Your task to perform on an android device: turn off location Image 0: 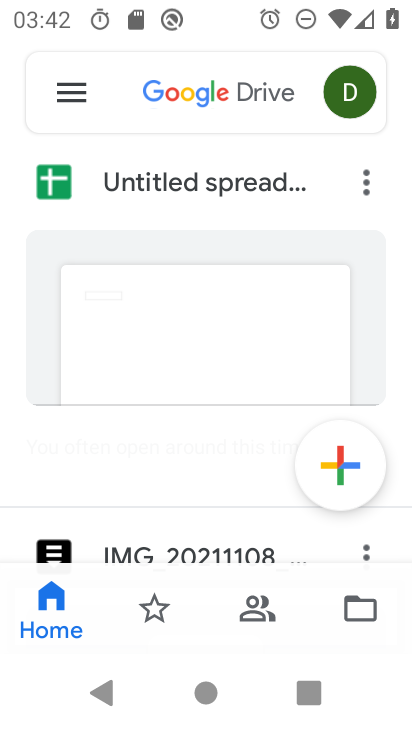
Step 0: press home button
Your task to perform on an android device: turn off location Image 1: 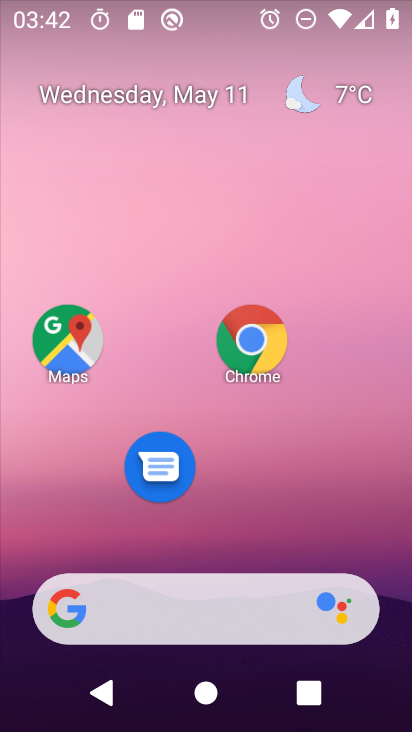
Step 1: drag from (165, 633) to (266, 64)
Your task to perform on an android device: turn off location Image 2: 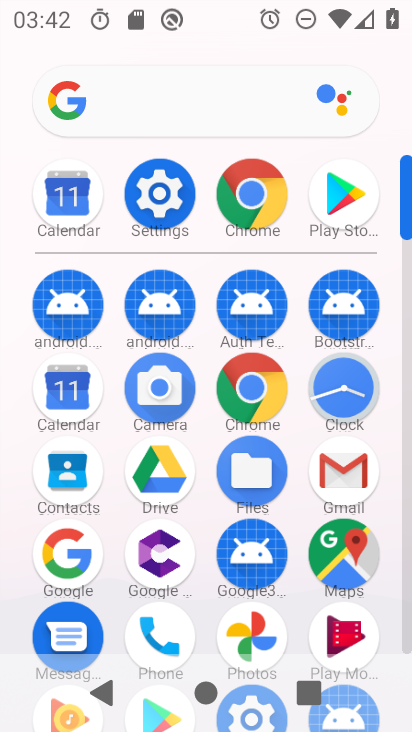
Step 2: click (170, 191)
Your task to perform on an android device: turn off location Image 3: 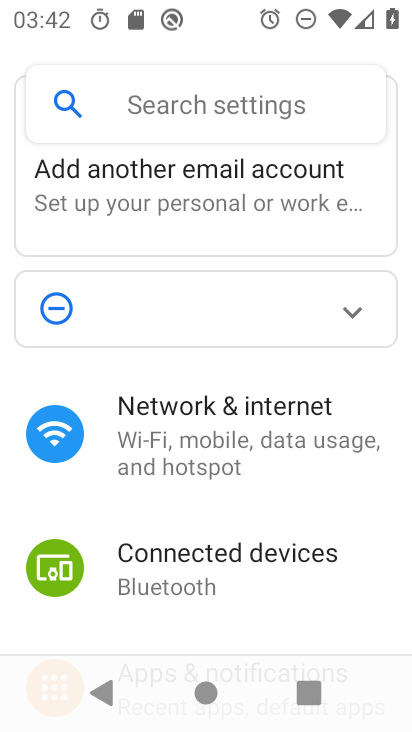
Step 3: drag from (212, 593) to (321, 157)
Your task to perform on an android device: turn off location Image 4: 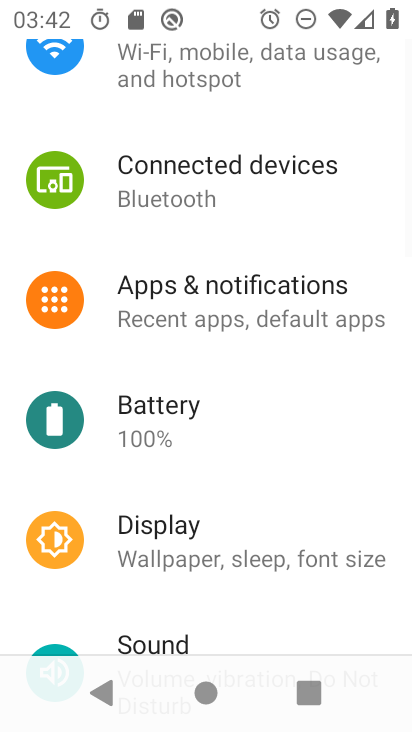
Step 4: drag from (245, 585) to (307, 169)
Your task to perform on an android device: turn off location Image 5: 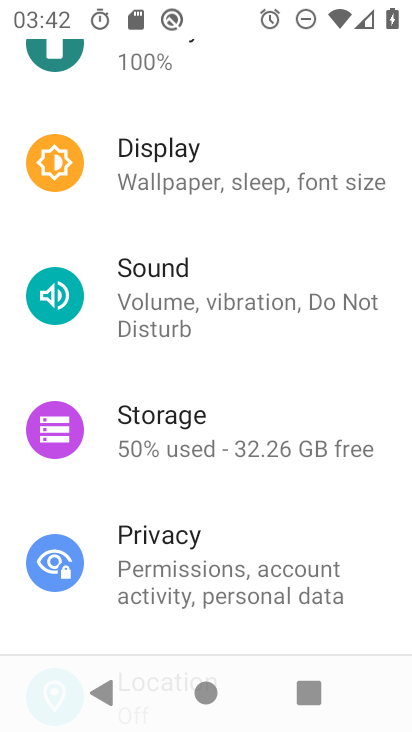
Step 5: drag from (208, 564) to (241, 176)
Your task to perform on an android device: turn off location Image 6: 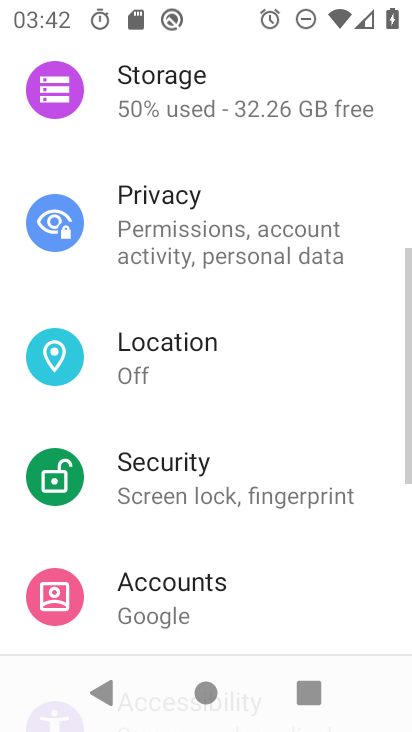
Step 6: click (182, 355)
Your task to perform on an android device: turn off location Image 7: 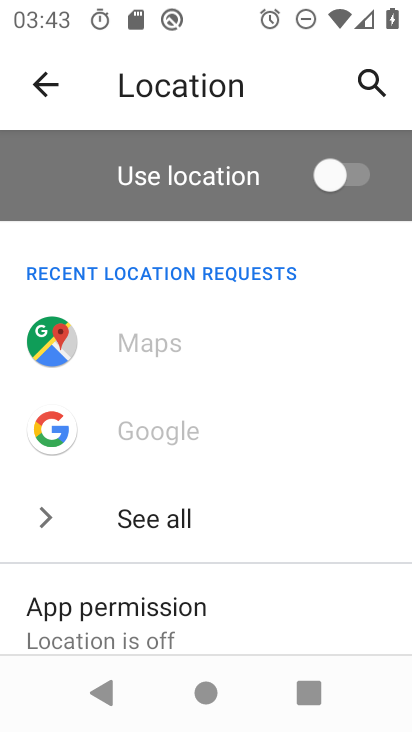
Step 7: task complete